Your task to perform on an android device: Go to ESPN.com Image 0: 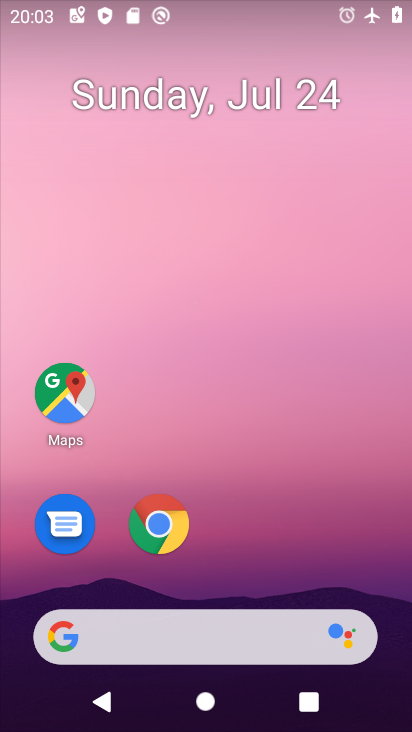
Step 0: drag from (226, 557) to (220, 371)
Your task to perform on an android device: Go to ESPN.com Image 1: 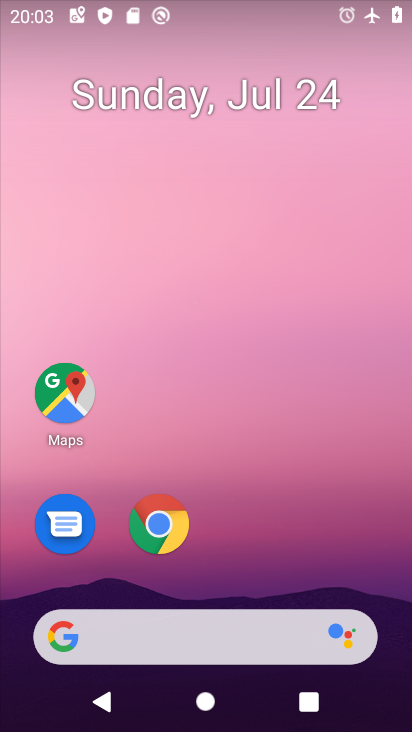
Step 1: click (229, 636)
Your task to perform on an android device: Go to ESPN.com Image 2: 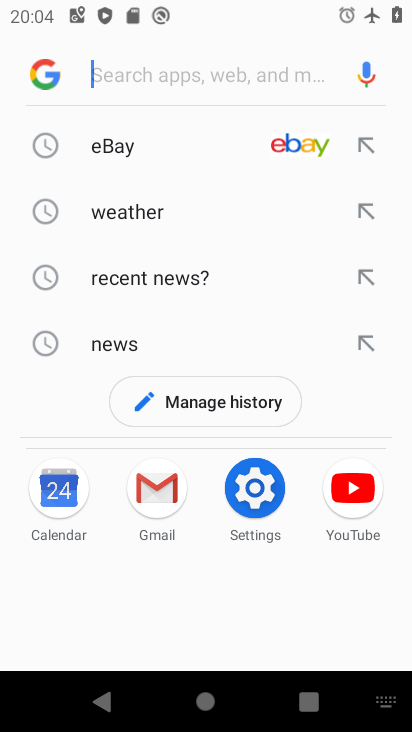
Step 2: type "espn.com"
Your task to perform on an android device: Go to ESPN.com Image 3: 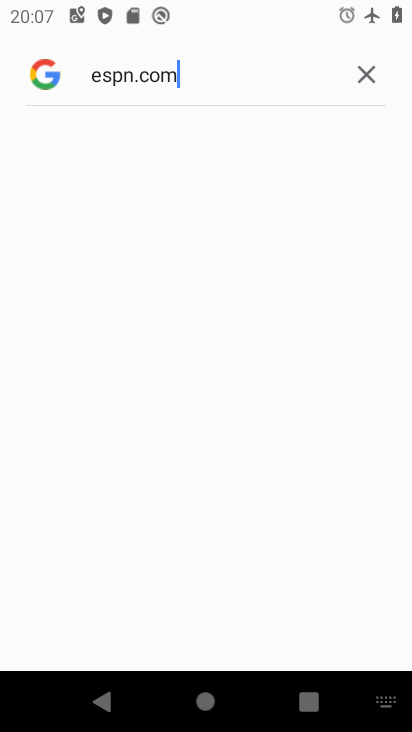
Step 3: task complete